Your task to perform on an android device: change the clock display to analog Image 0: 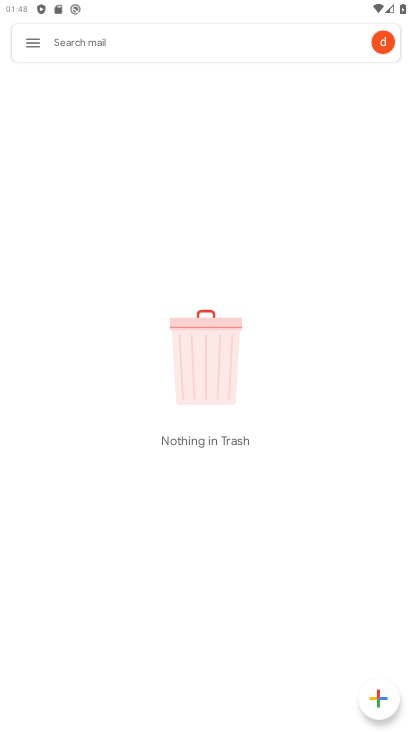
Step 0: press home button
Your task to perform on an android device: change the clock display to analog Image 1: 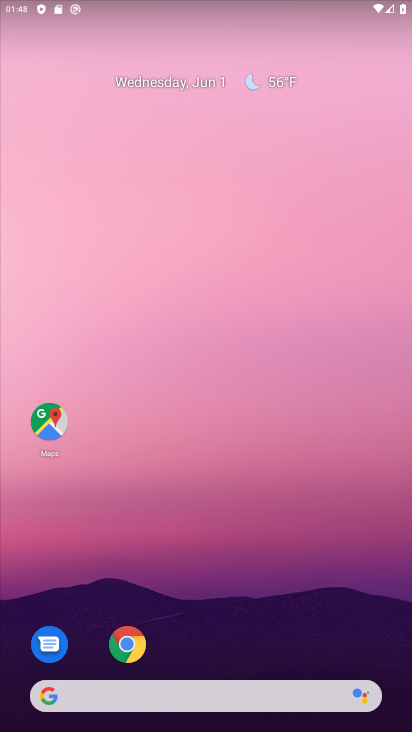
Step 1: drag from (238, 649) to (229, 314)
Your task to perform on an android device: change the clock display to analog Image 2: 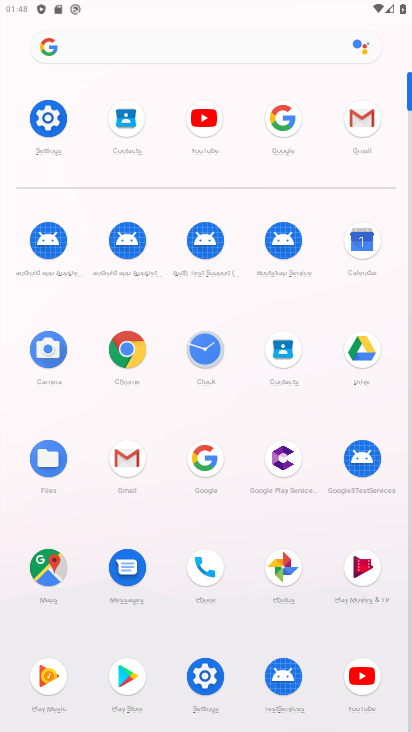
Step 2: click (196, 341)
Your task to perform on an android device: change the clock display to analog Image 3: 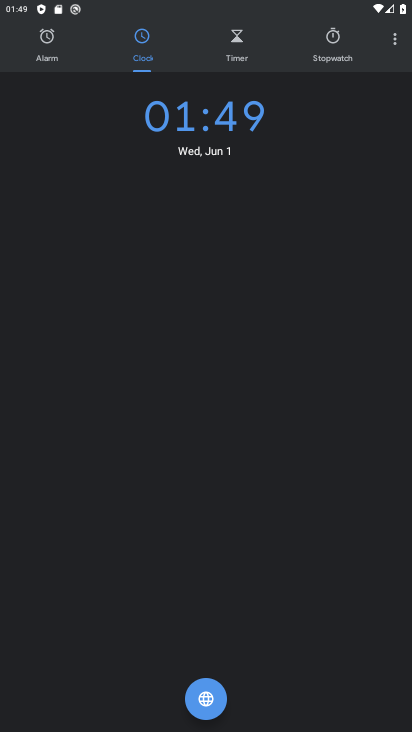
Step 3: click (396, 41)
Your task to perform on an android device: change the clock display to analog Image 4: 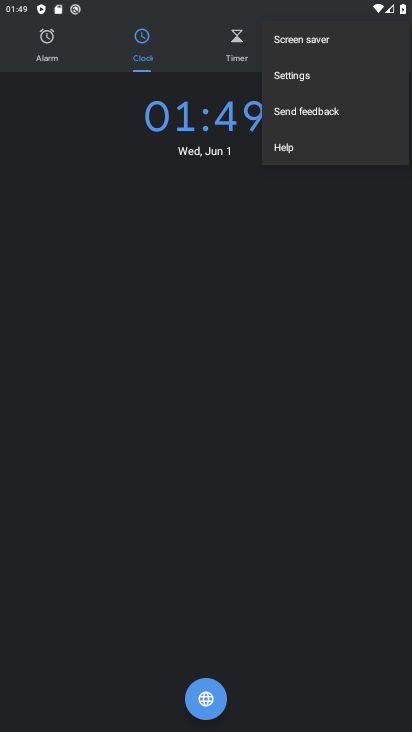
Step 4: click (294, 69)
Your task to perform on an android device: change the clock display to analog Image 5: 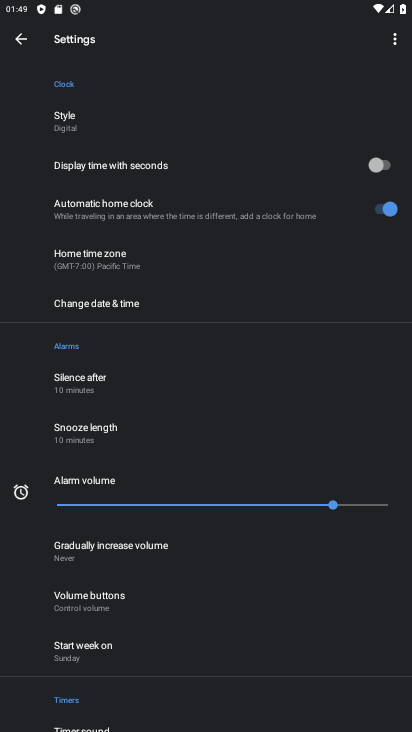
Step 5: click (71, 122)
Your task to perform on an android device: change the clock display to analog Image 6: 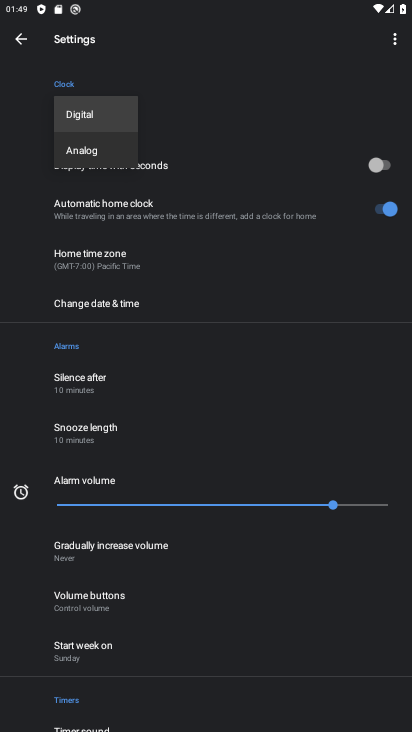
Step 6: click (97, 155)
Your task to perform on an android device: change the clock display to analog Image 7: 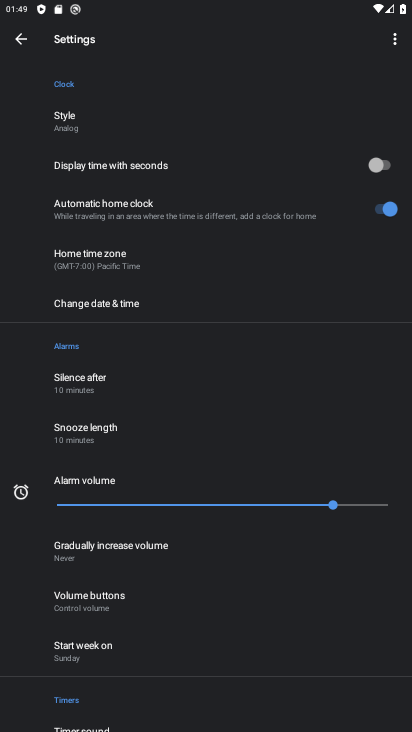
Step 7: task complete